Your task to perform on an android device: Check the news Image 0: 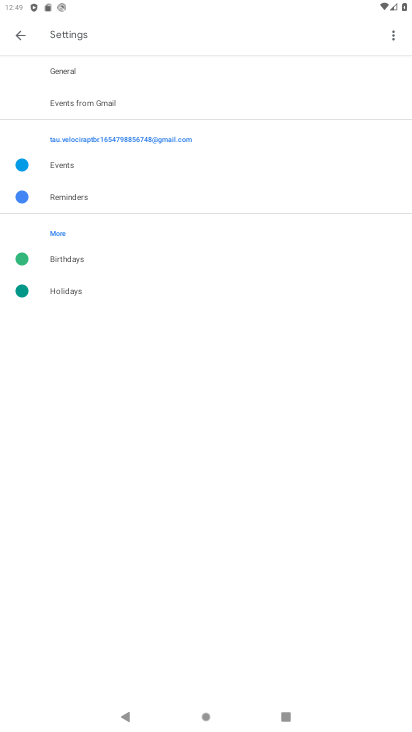
Step 0: press home button
Your task to perform on an android device: Check the news Image 1: 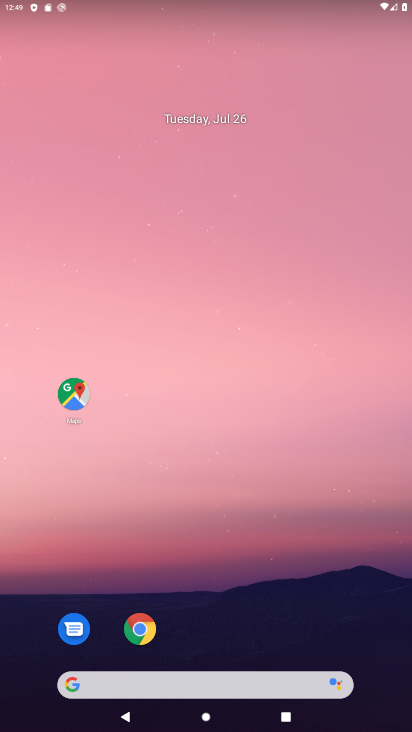
Step 1: task complete